Your task to perform on an android device: open app "Instagram" (install if not already installed), go to login, and select forgot password Image 0: 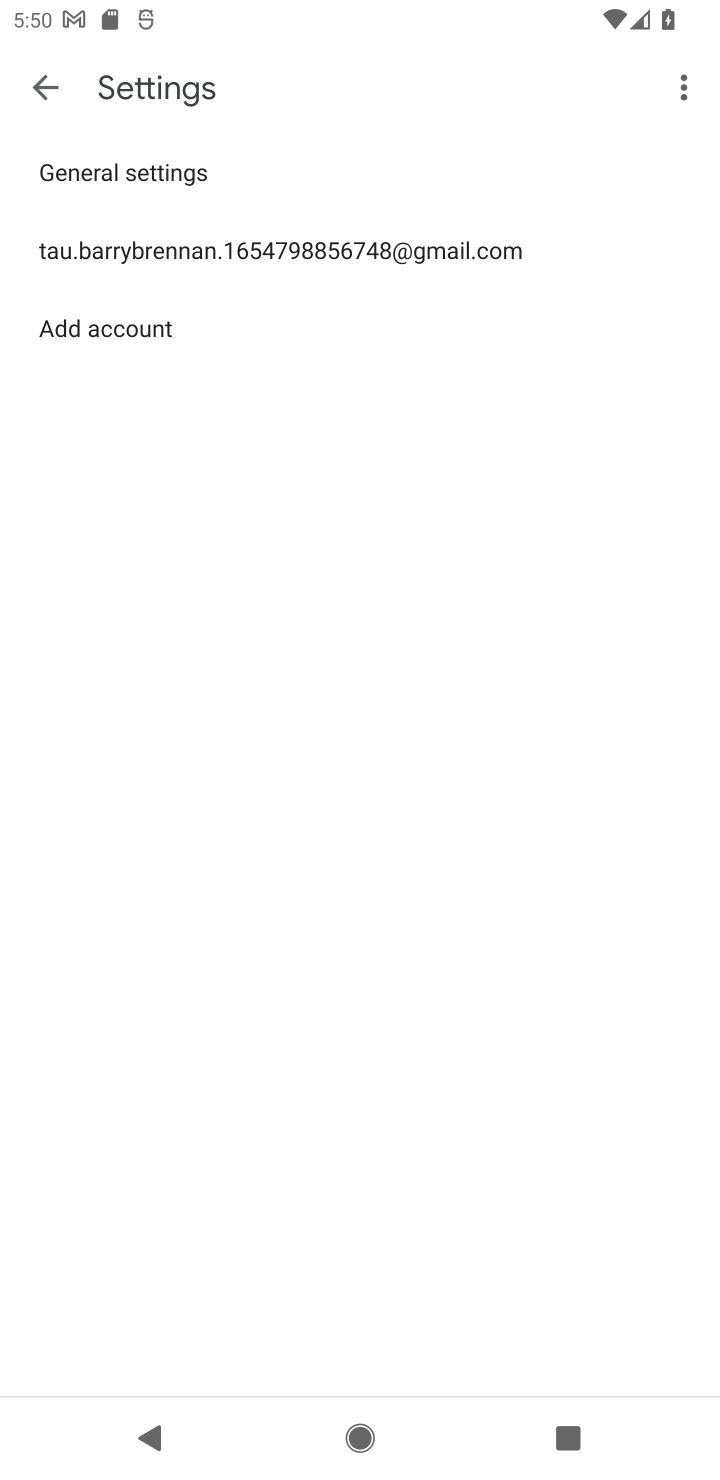
Step 0: press home button
Your task to perform on an android device: open app "Instagram" (install if not already installed), go to login, and select forgot password Image 1: 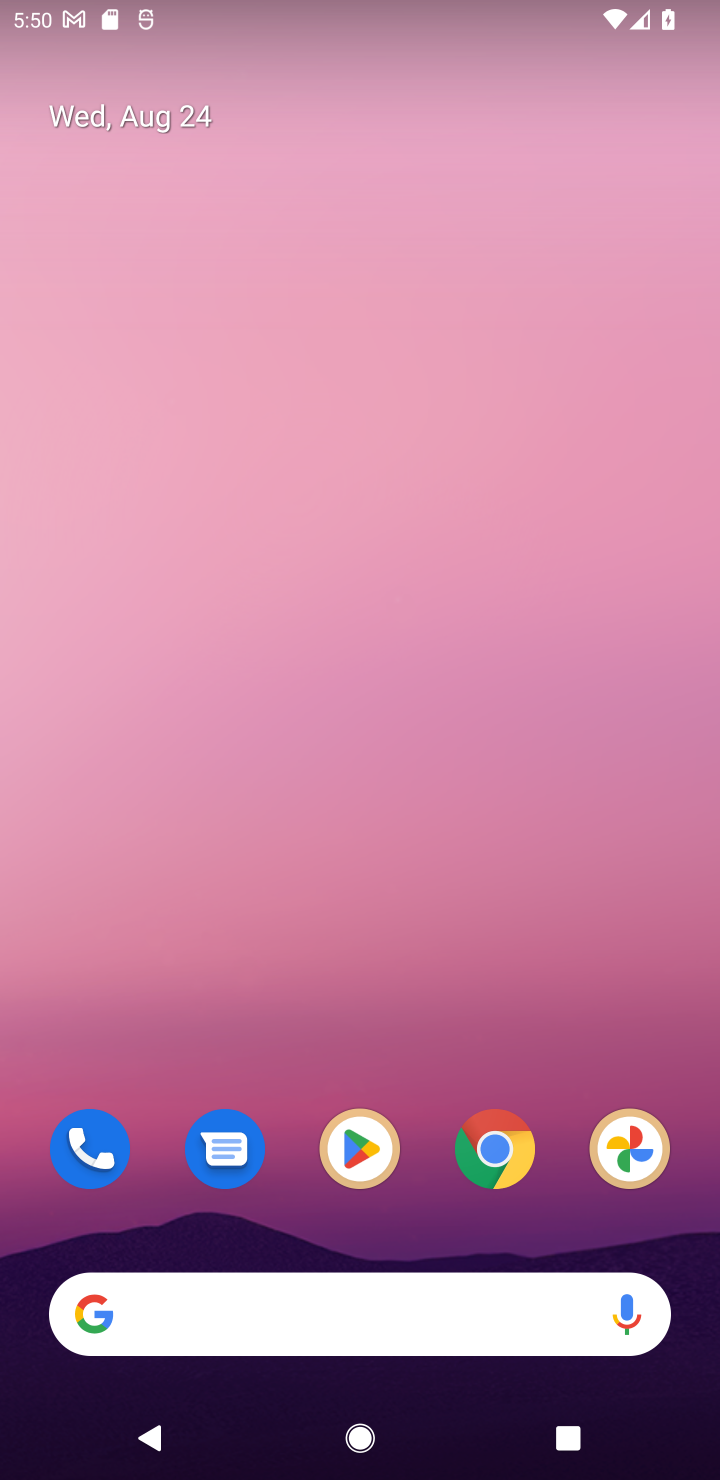
Step 1: click (366, 1153)
Your task to perform on an android device: open app "Instagram" (install if not already installed), go to login, and select forgot password Image 2: 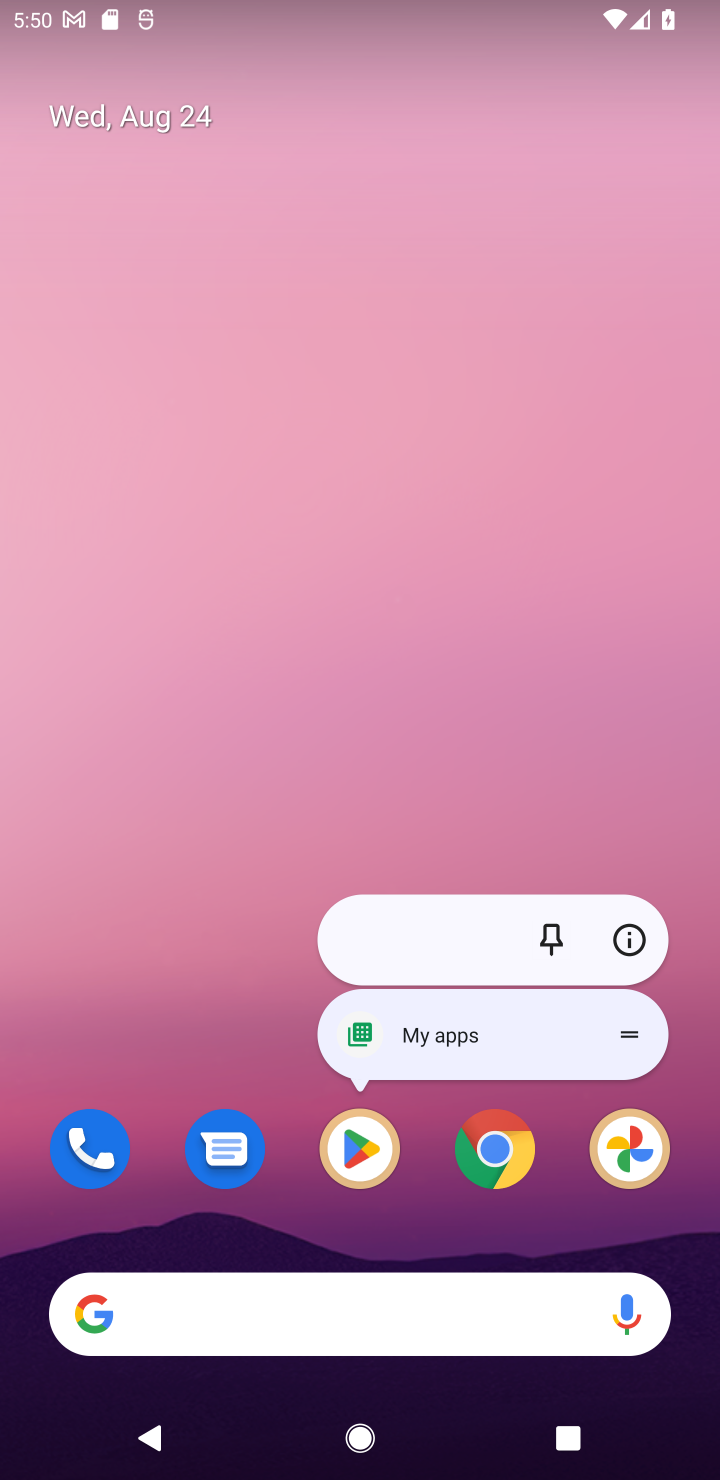
Step 2: click (366, 1161)
Your task to perform on an android device: open app "Instagram" (install if not already installed), go to login, and select forgot password Image 3: 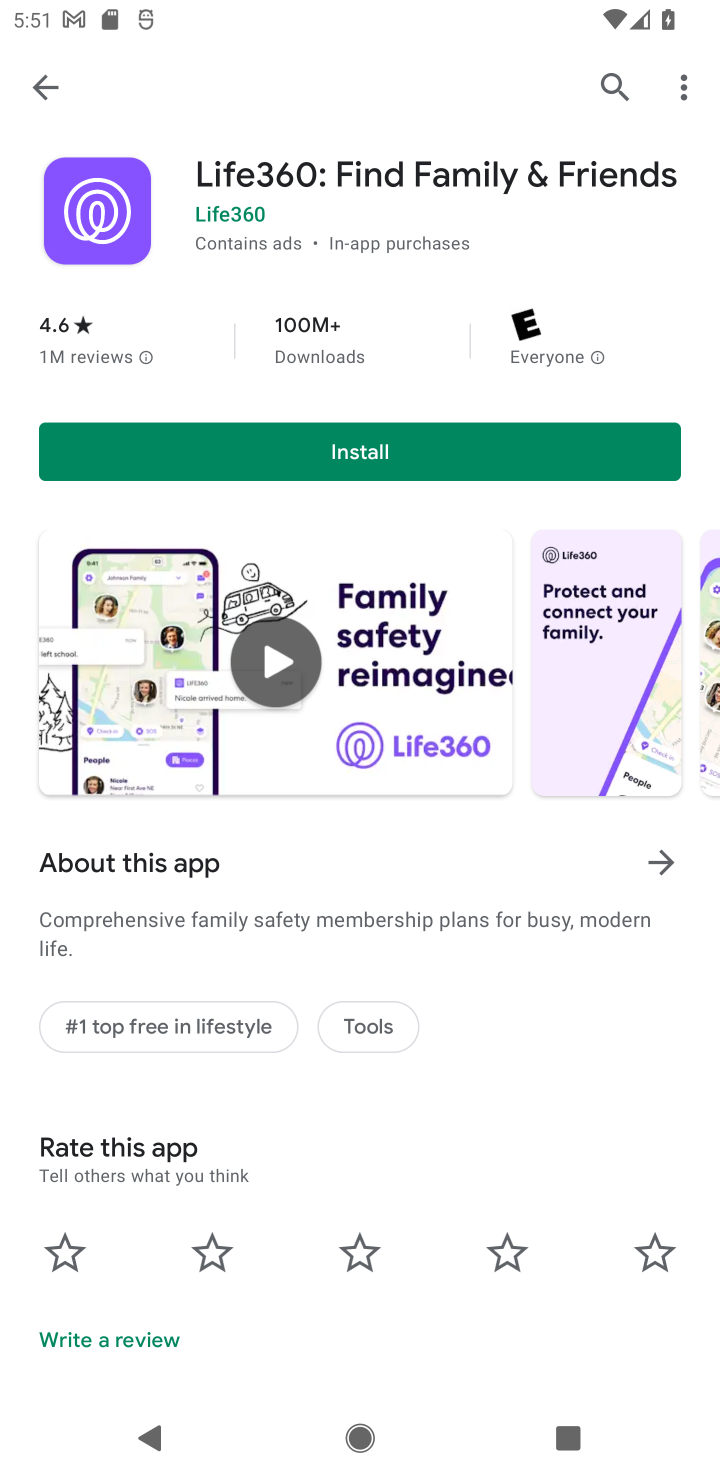
Step 3: click (605, 82)
Your task to perform on an android device: open app "Instagram" (install if not already installed), go to login, and select forgot password Image 4: 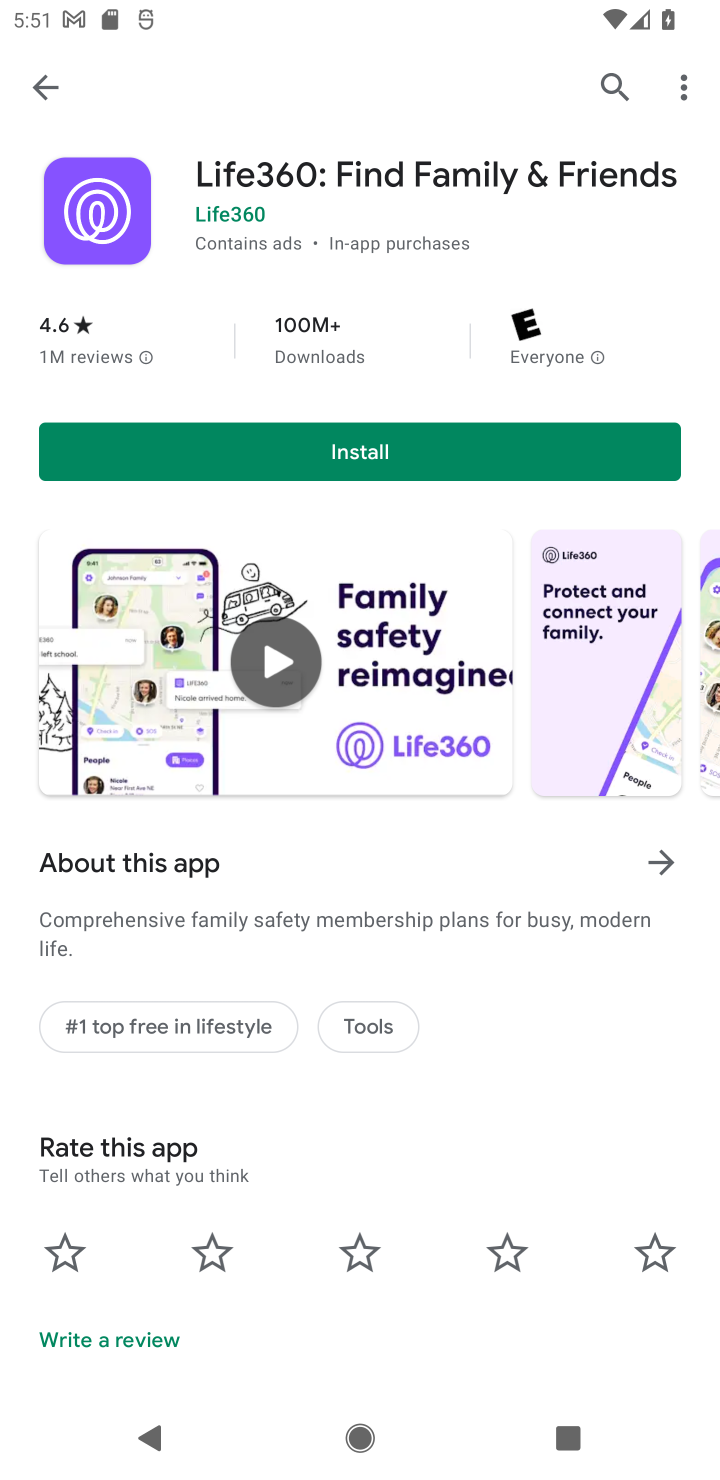
Step 4: click (608, 88)
Your task to perform on an android device: open app "Instagram" (install if not already installed), go to login, and select forgot password Image 5: 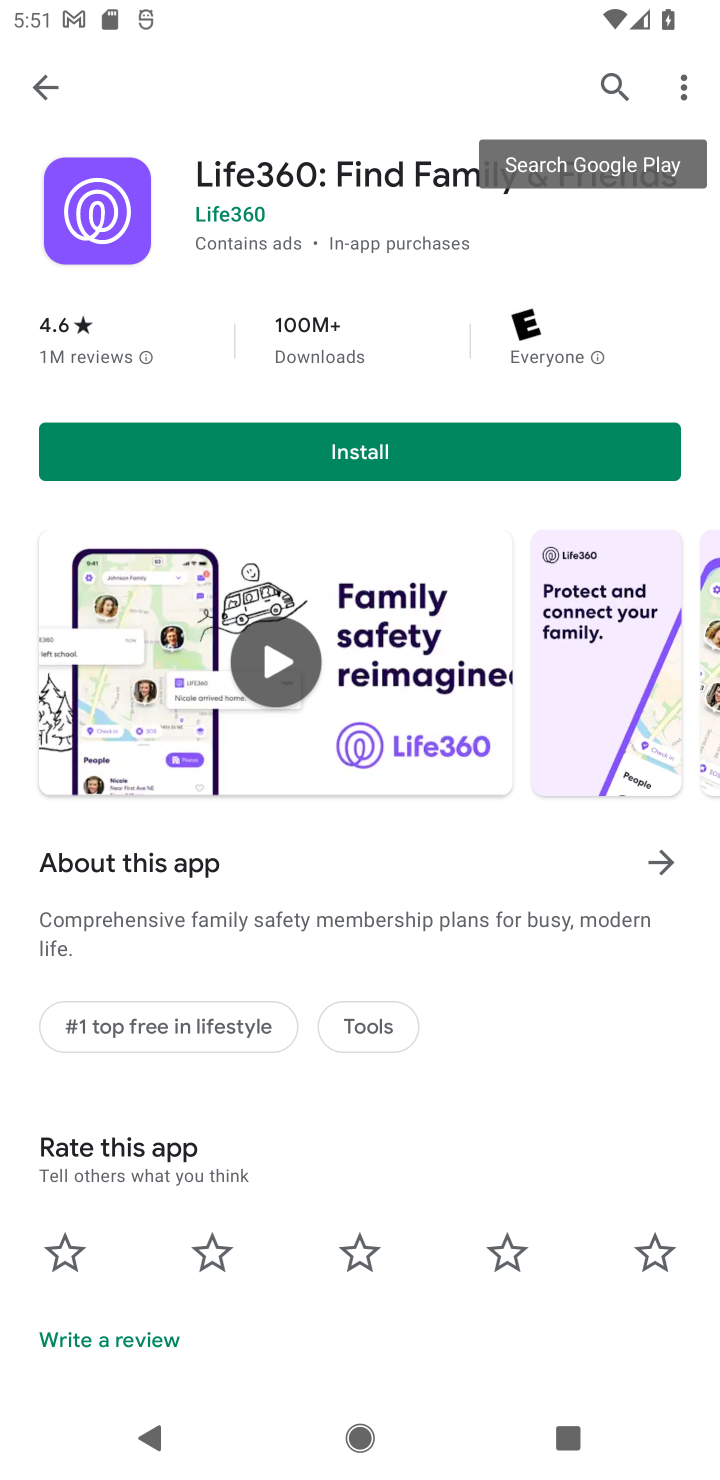
Step 5: click (614, 69)
Your task to perform on an android device: open app "Instagram" (install if not already installed), go to login, and select forgot password Image 6: 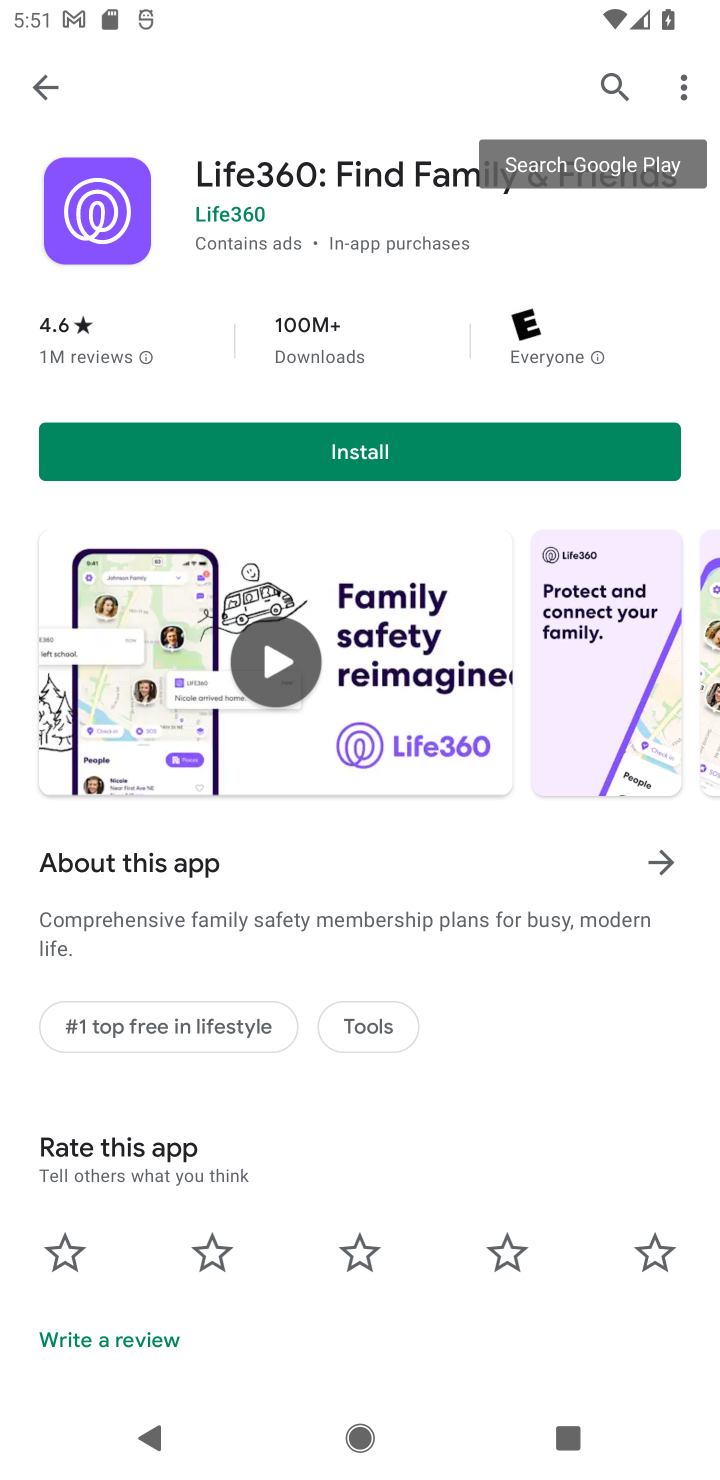
Step 6: click (596, 74)
Your task to perform on an android device: open app "Instagram" (install if not already installed), go to login, and select forgot password Image 7: 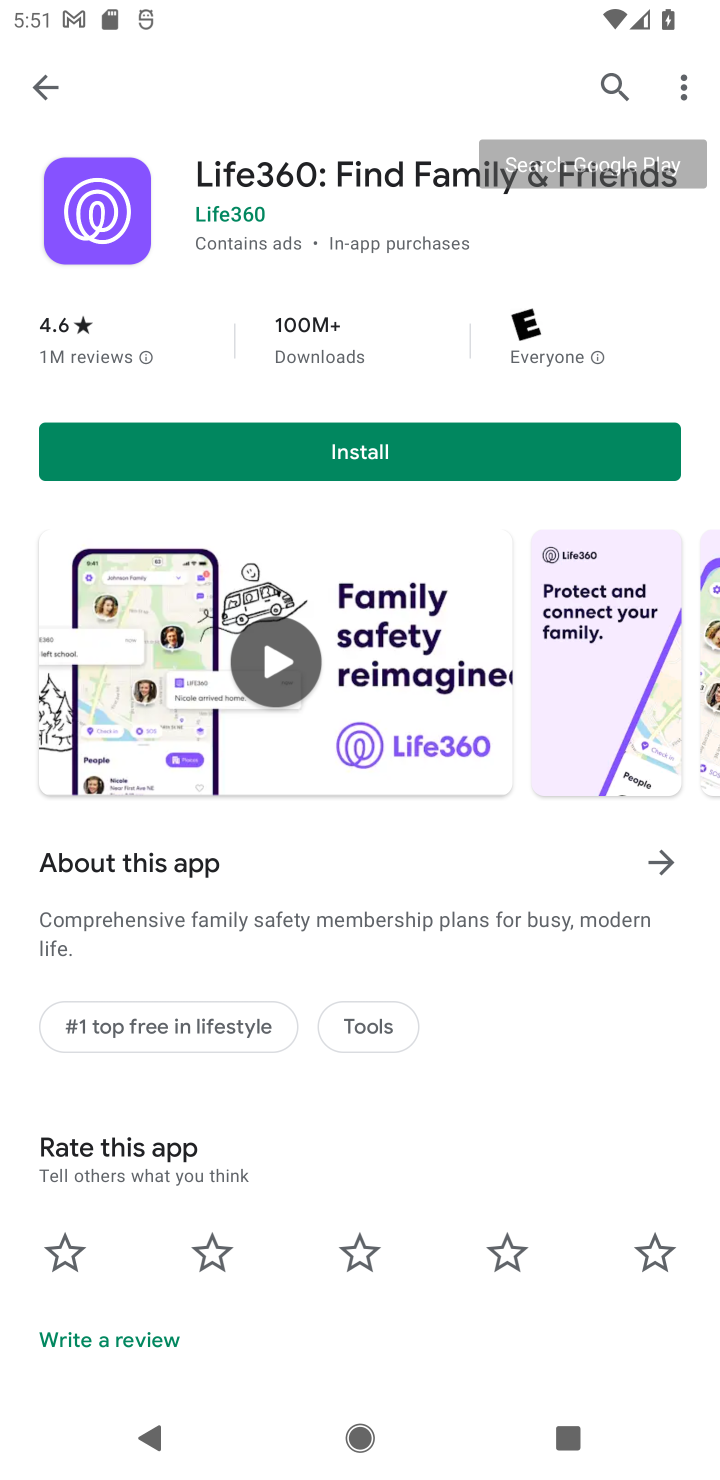
Step 7: click (584, 84)
Your task to perform on an android device: open app "Instagram" (install if not already installed), go to login, and select forgot password Image 8: 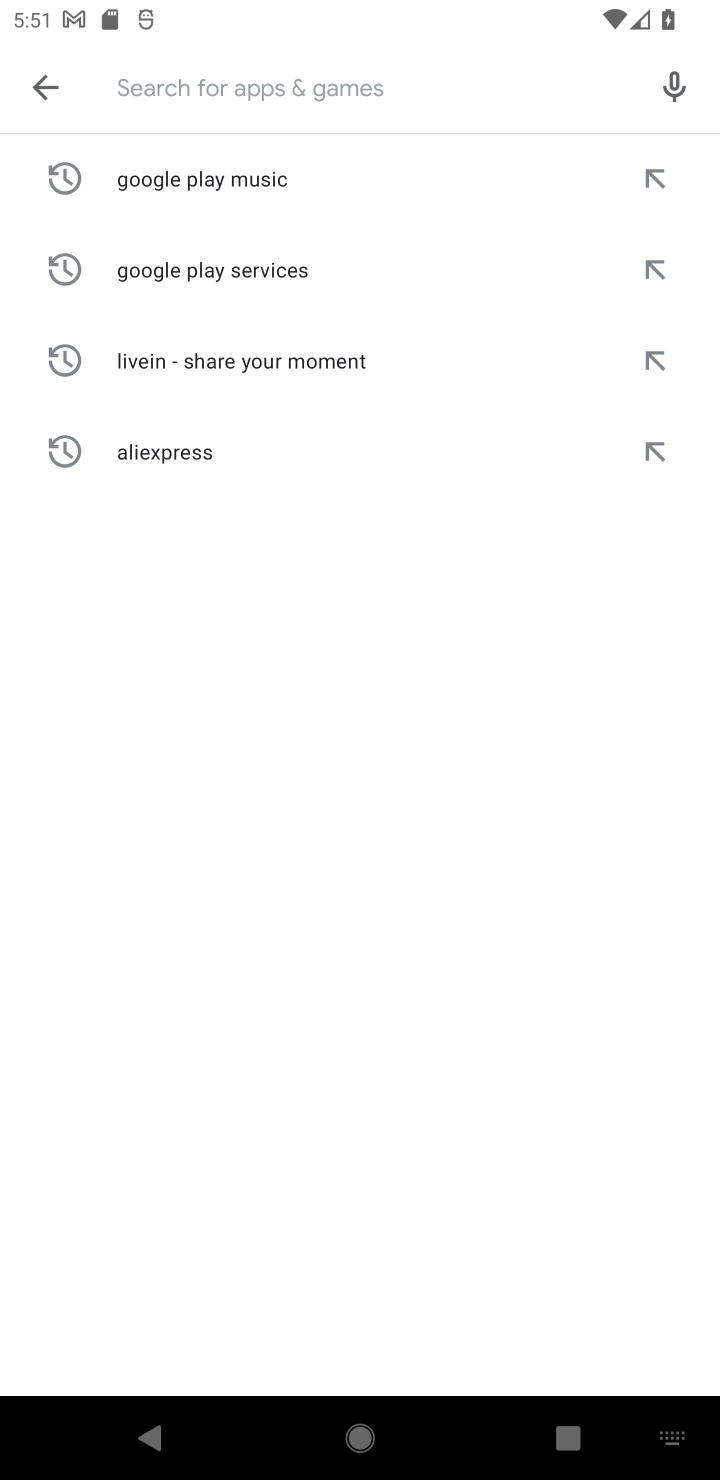
Step 8: type "Instagram"
Your task to perform on an android device: open app "Instagram" (install if not already installed), go to login, and select forgot password Image 9: 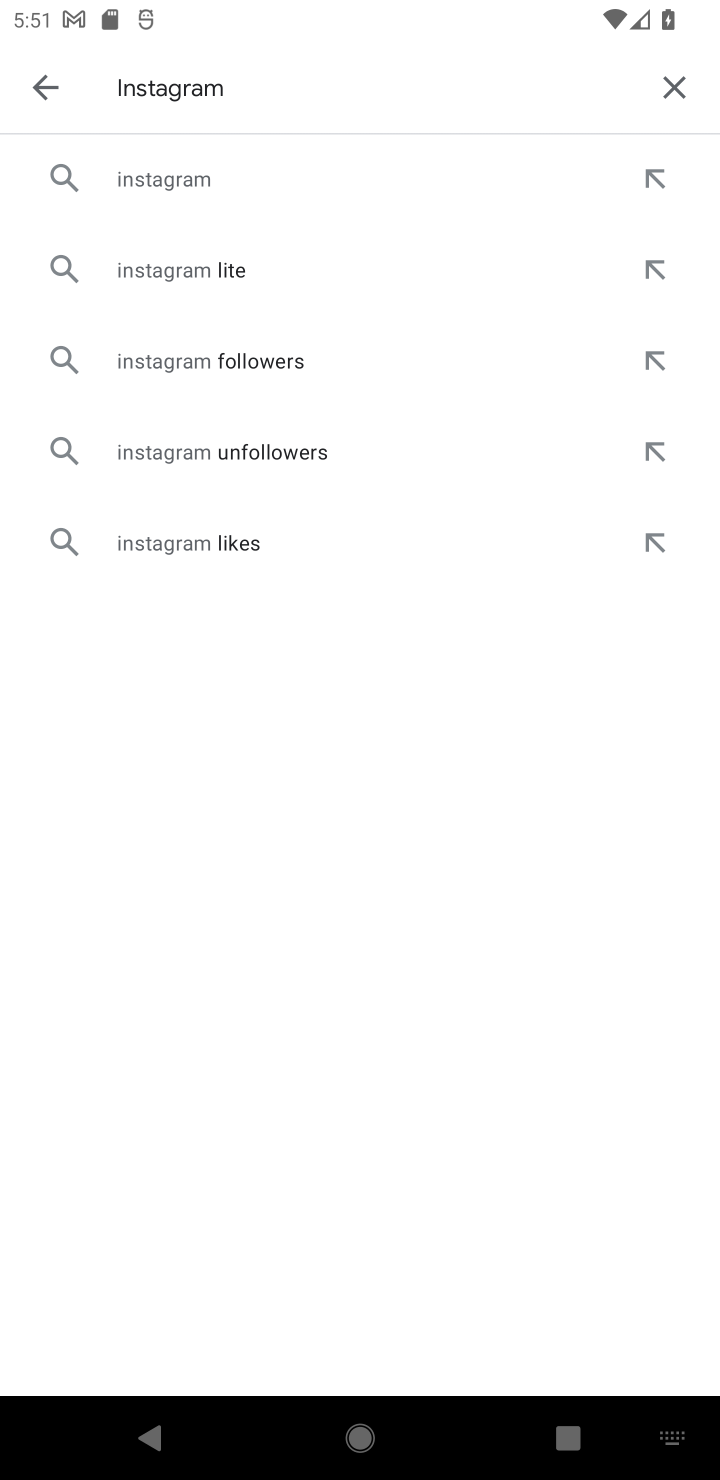
Step 9: click (183, 177)
Your task to perform on an android device: open app "Instagram" (install if not already installed), go to login, and select forgot password Image 10: 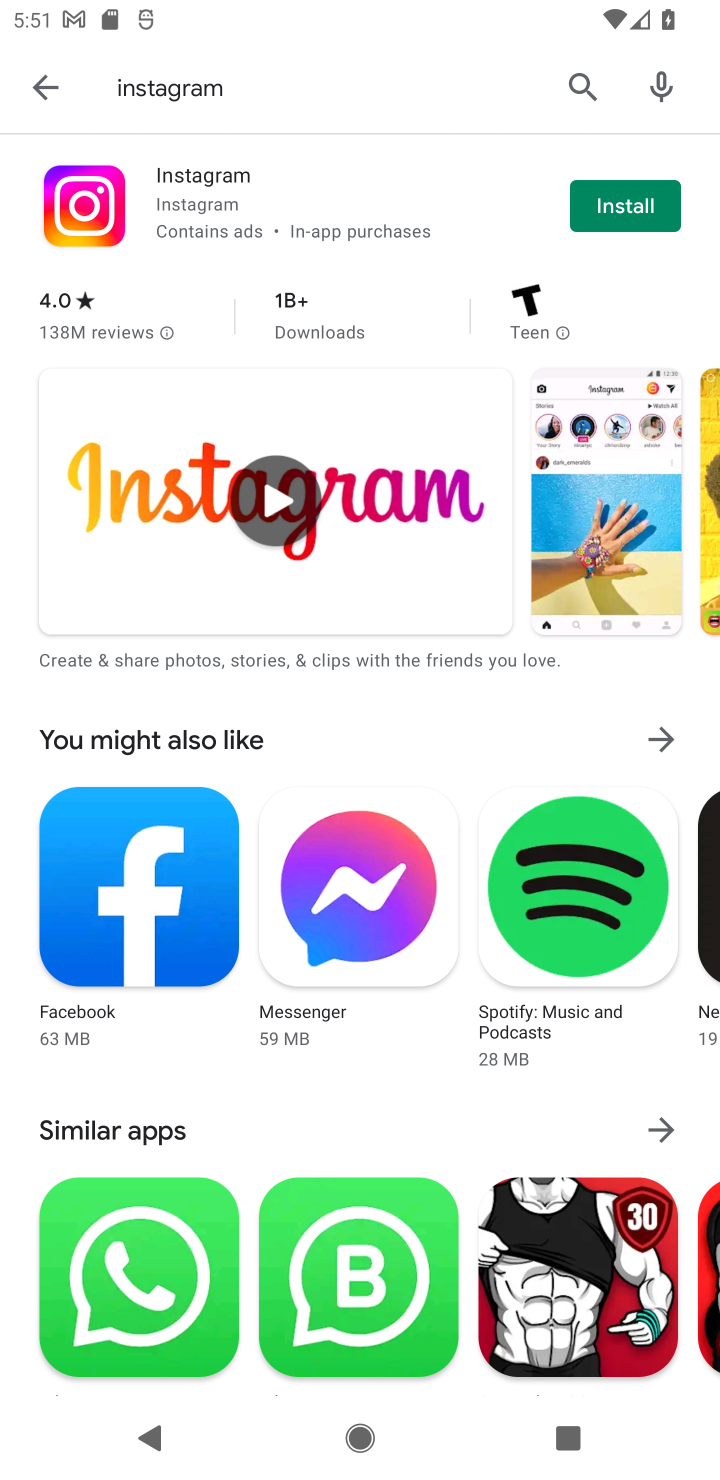
Step 10: click (631, 206)
Your task to perform on an android device: open app "Instagram" (install if not already installed), go to login, and select forgot password Image 11: 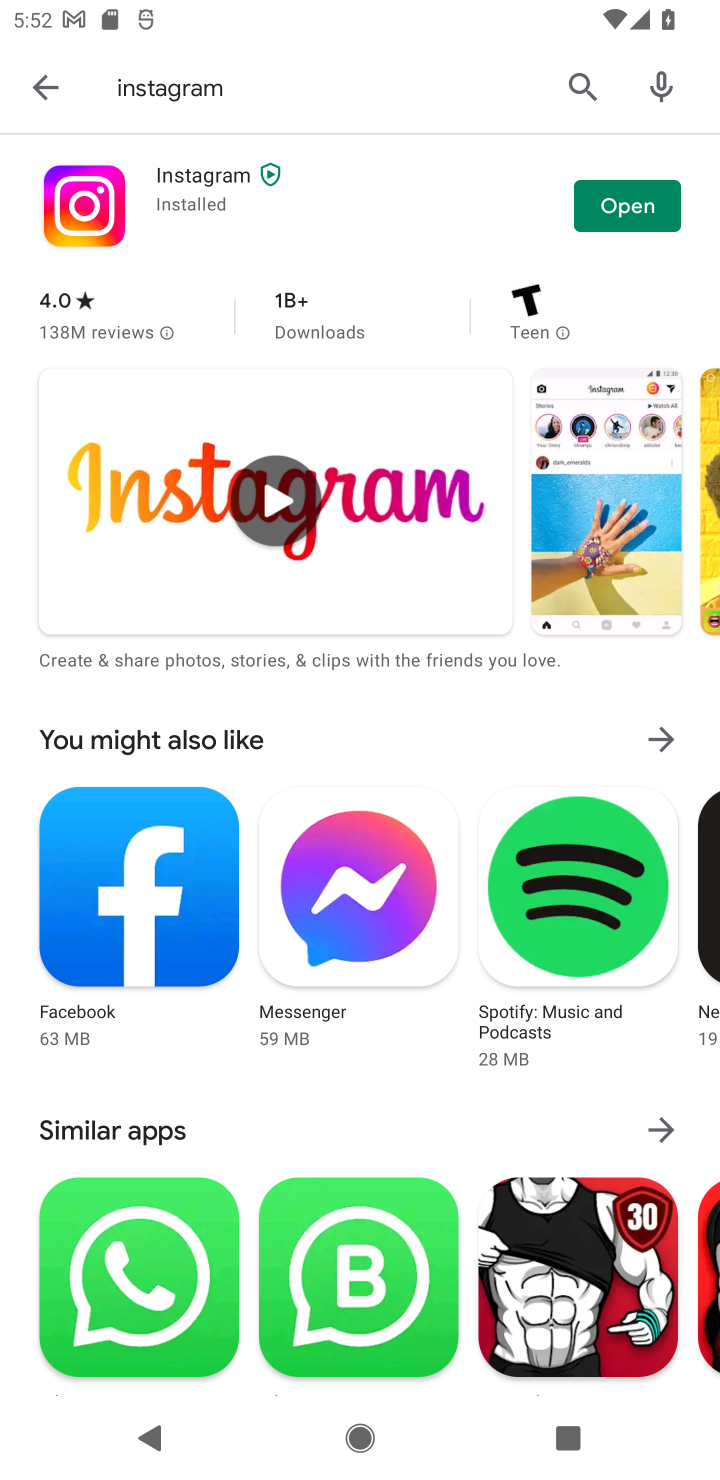
Step 11: click (614, 208)
Your task to perform on an android device: open app "Instagram" (install if not already installed), go to login, and select forgot password Image 12: 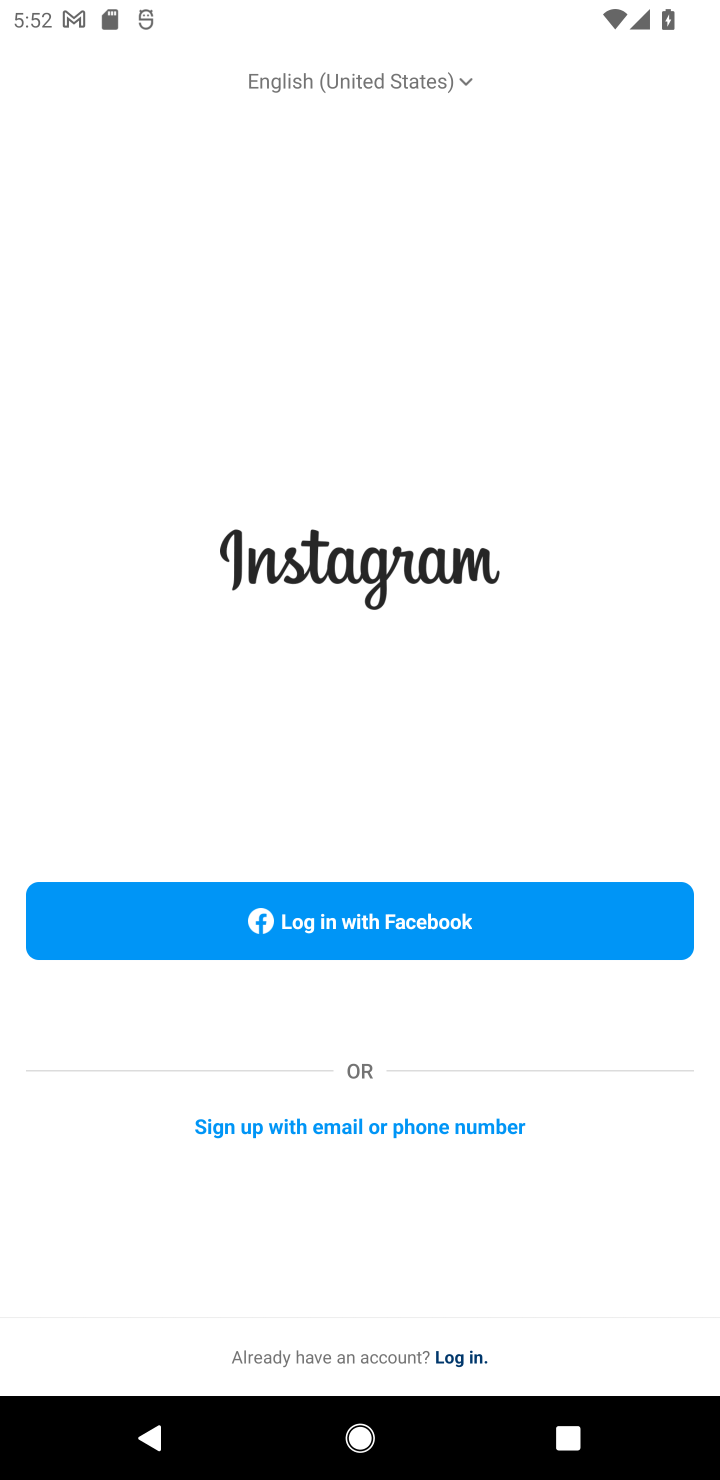
Step 12: click (372, 1116)
Your task to perform on an android device: open app "Instagram" (install if not already installed), go to login, and select forgot password Image 13: 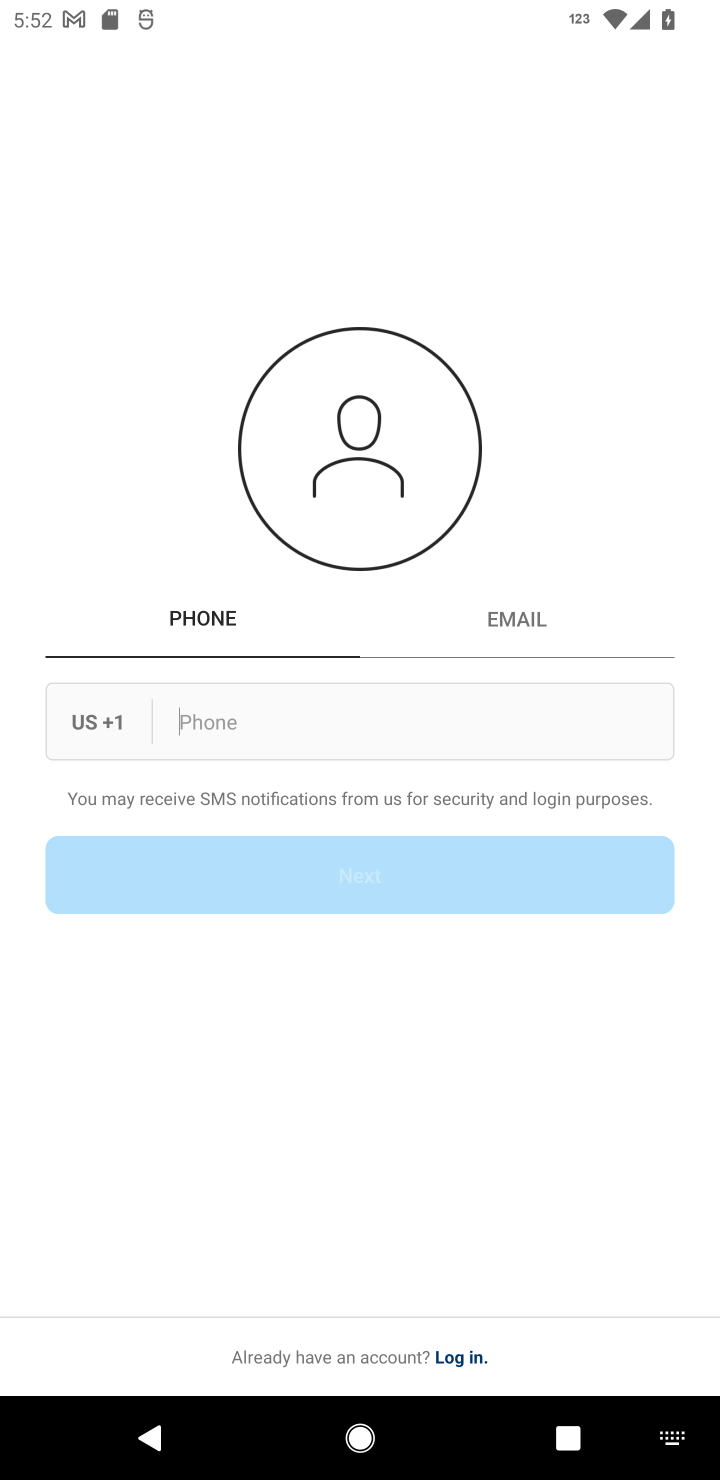
Step 13: click (510, 610)
Your task to perform on an android device: open app "Instagram" (install if not already installed), go to login, and select forgot password Image 14: 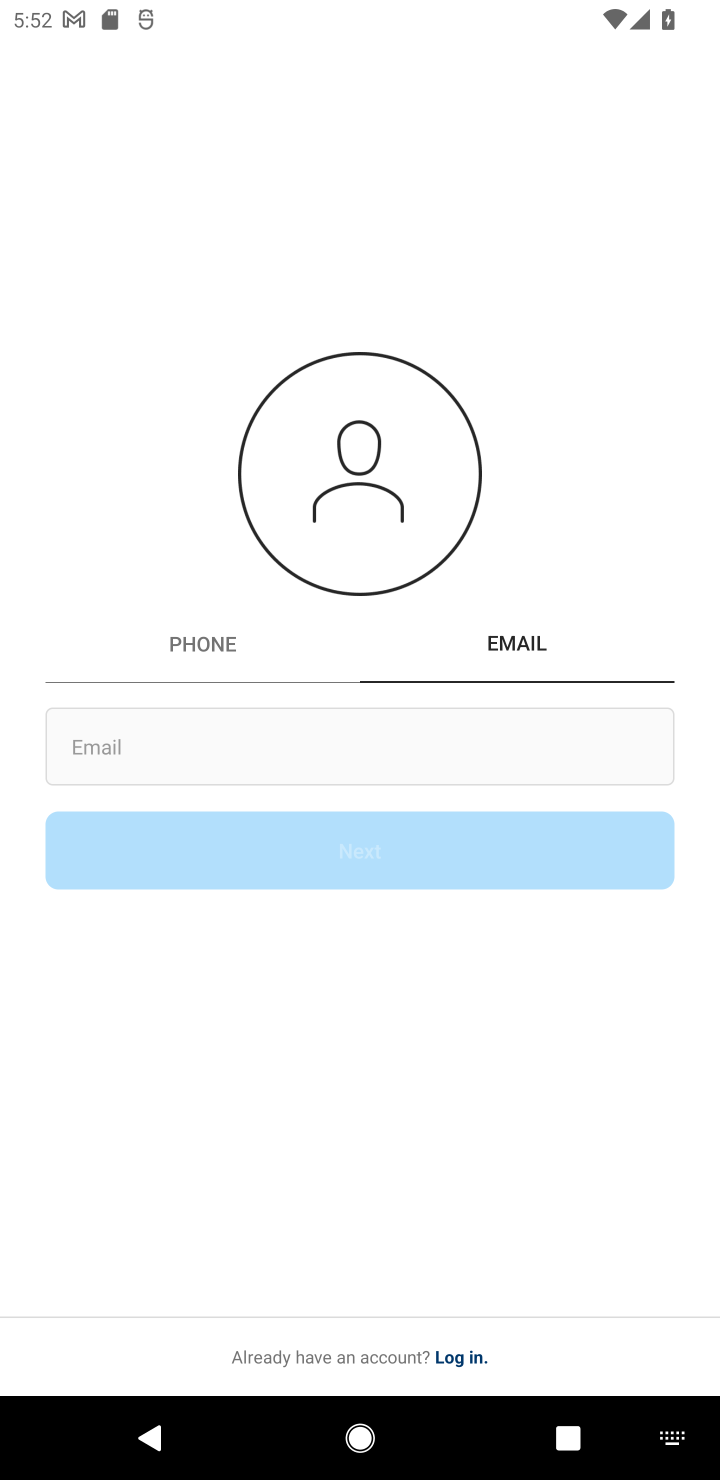
Step 14: task complete